Your task to perform on an android device: install app "Move to iOS" Image 0: 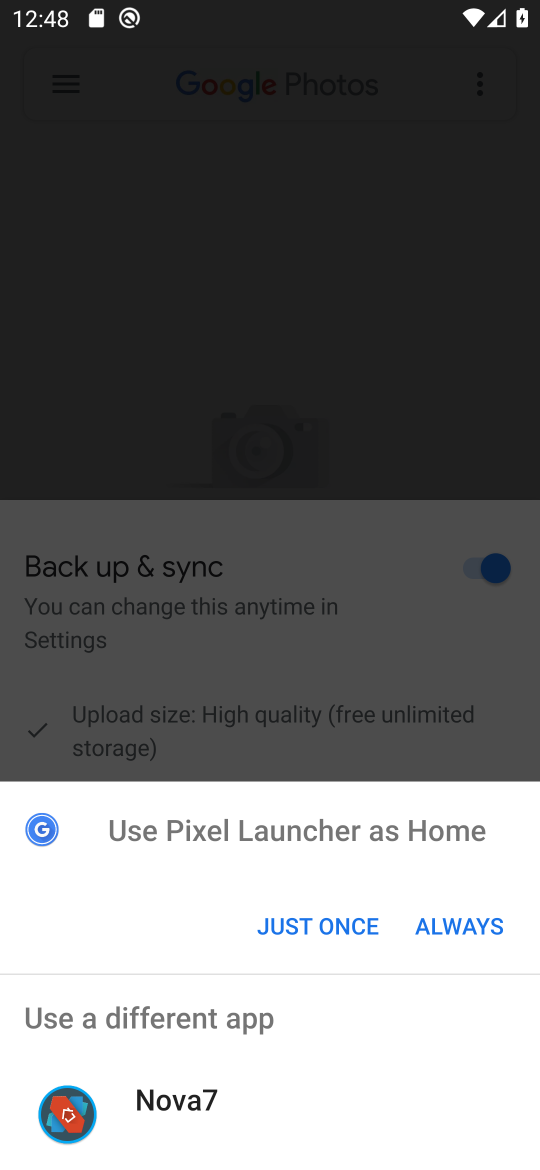
Step 0: press home button
Your task to perform on an android device: install app "Move to iOS" Image 1: 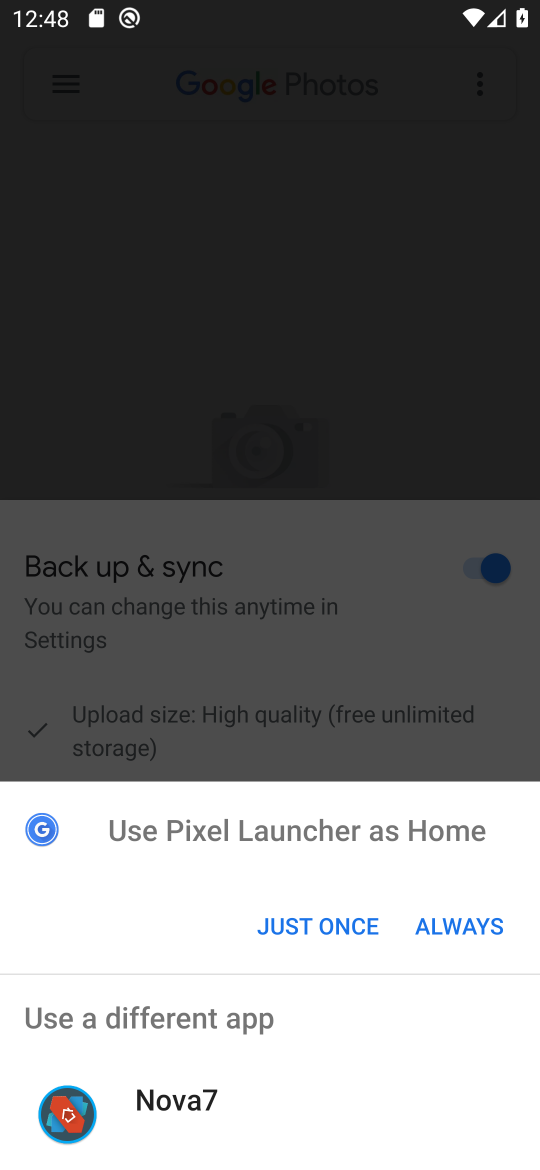
Step 1: click (279, 935)
Your task to perform on an android device: install app "Move to iOS" Image 2: 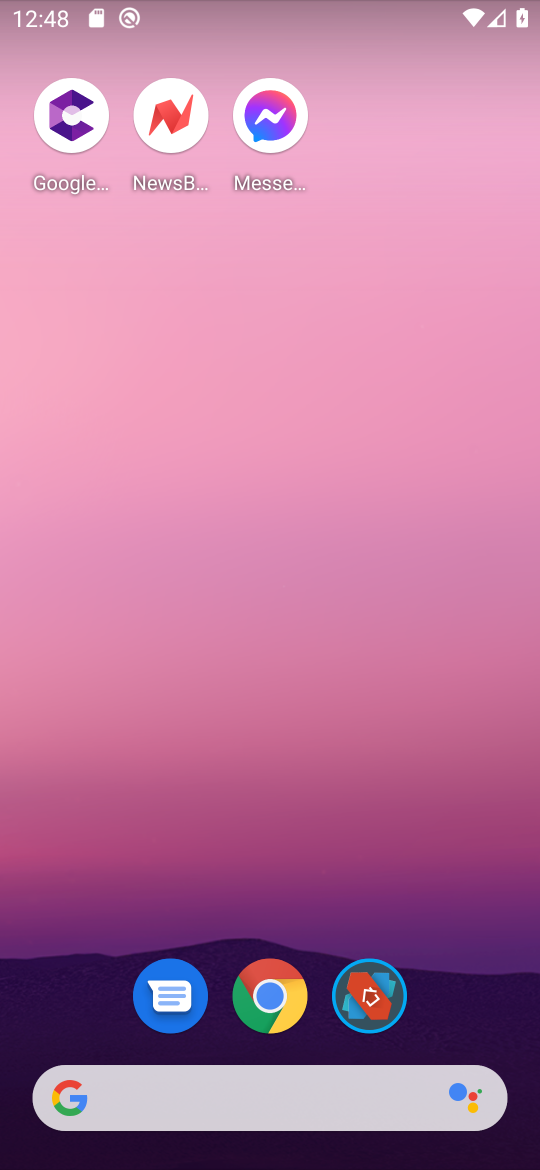
Step 2: drag from (333, 1065) to (383, 108)
Your task to perform on an android device: install app "Move to iOS" Image 3: 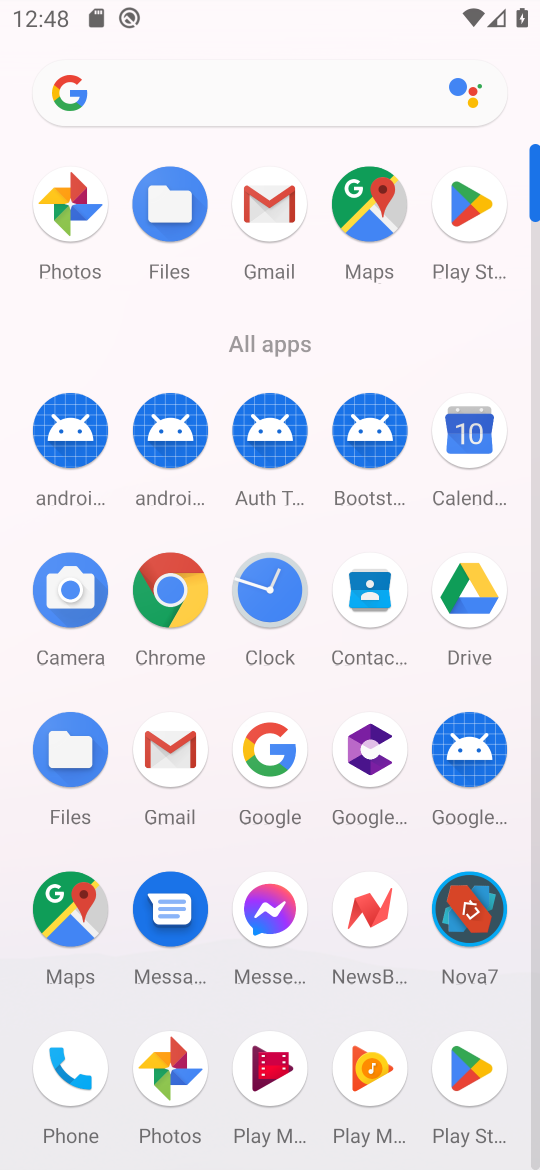
Step 3: click (468, 202)
Your task to perform on an android device: install app "Move to iOS" Image 4: 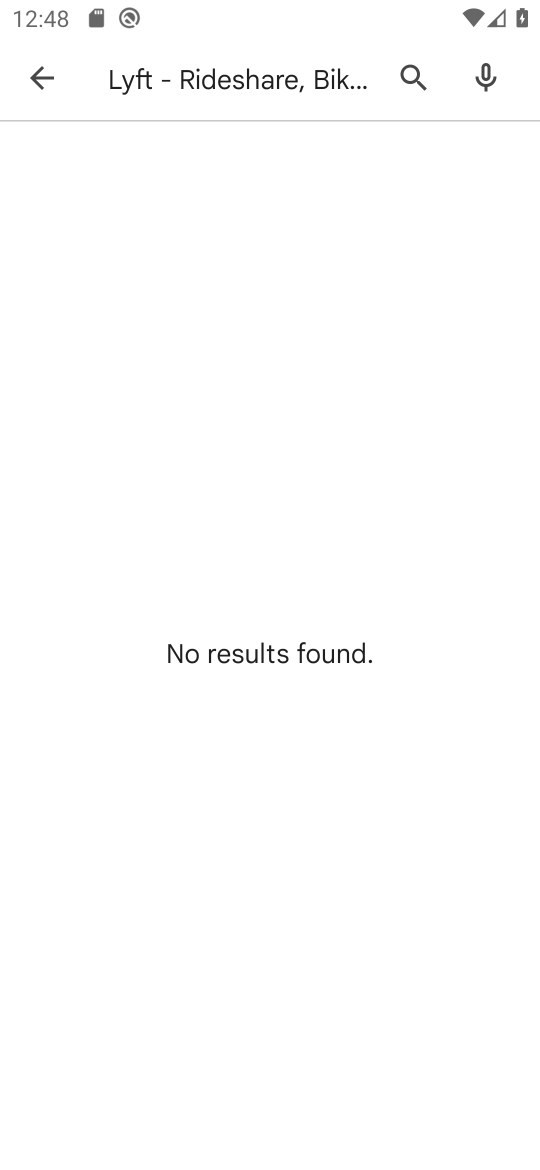
Step 4: press back button
Your task to perform on an android device: install app "Move to iOS" Image 5: 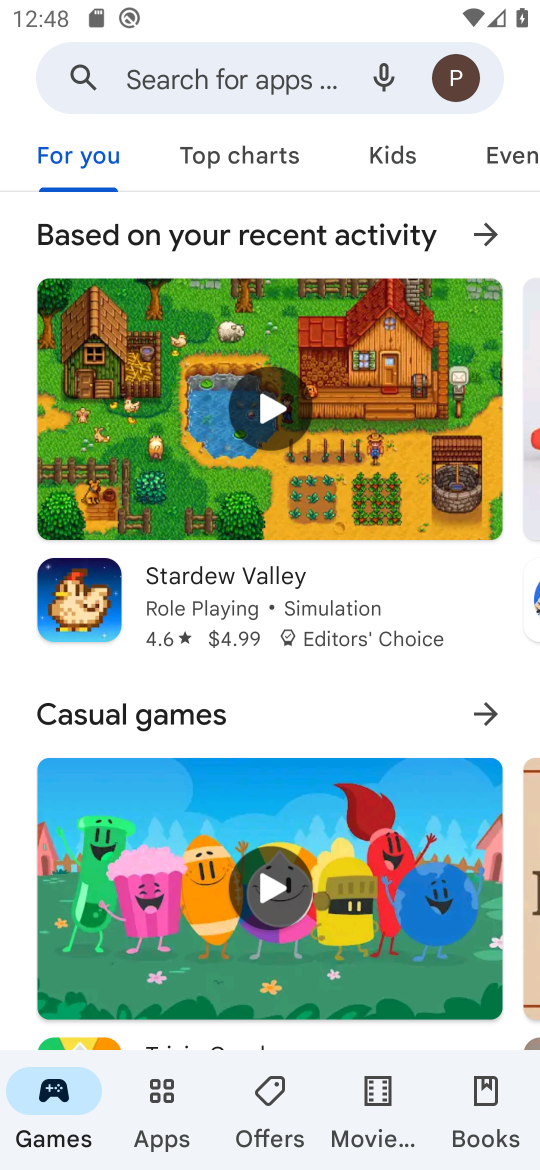
Step 5: click (219, 106)
Your task to perform on an android device: install app "Move to iOS" Image 6: 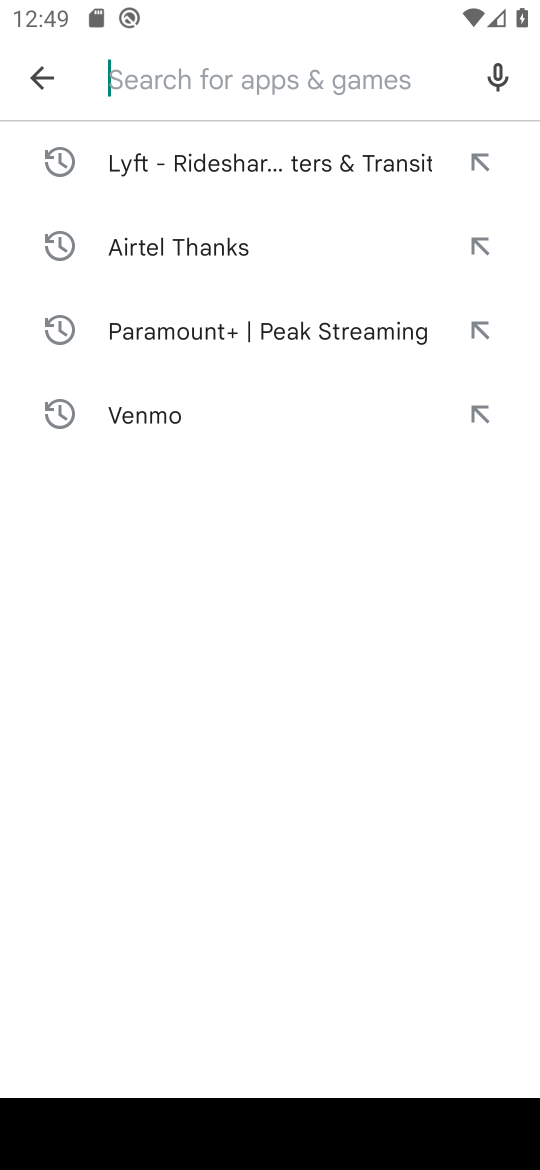
Step 6: type "Move to iOS"
Your task to perform on an android device: install app "Move to iOS" Image 7: 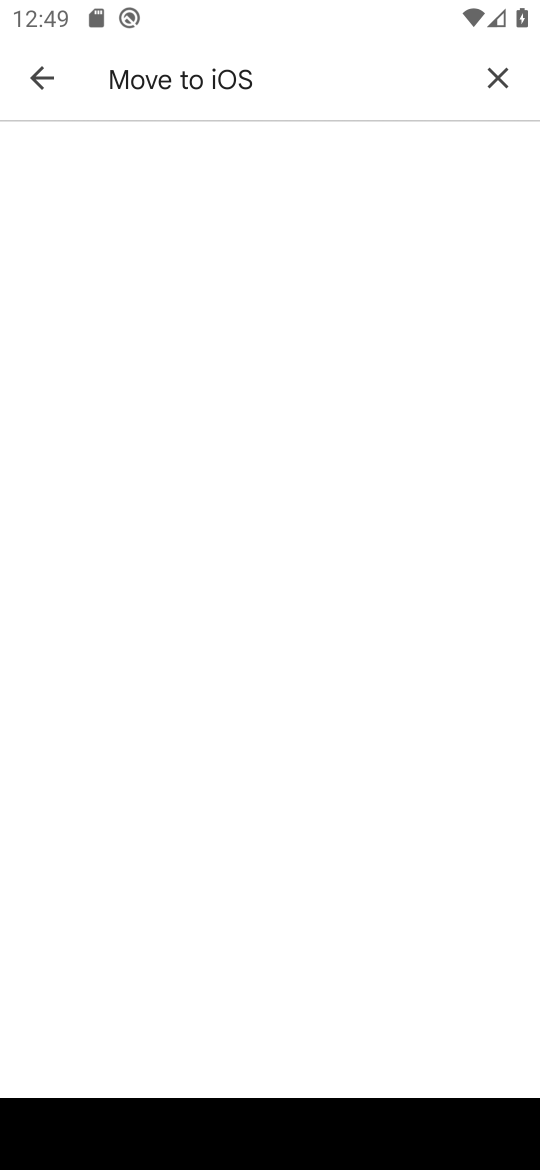
Step 7: press enter
Your task to perform on an android device: install app "Move to iOS" Image 8: 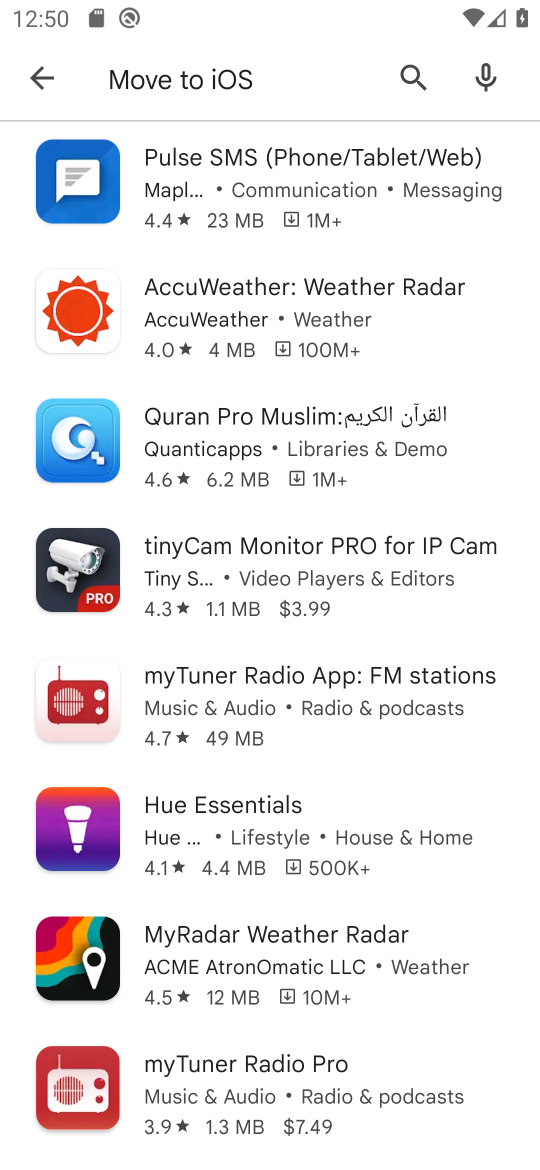
Step 8: task complete